Your task to perform on an android device: Go to Amazon Image 0: 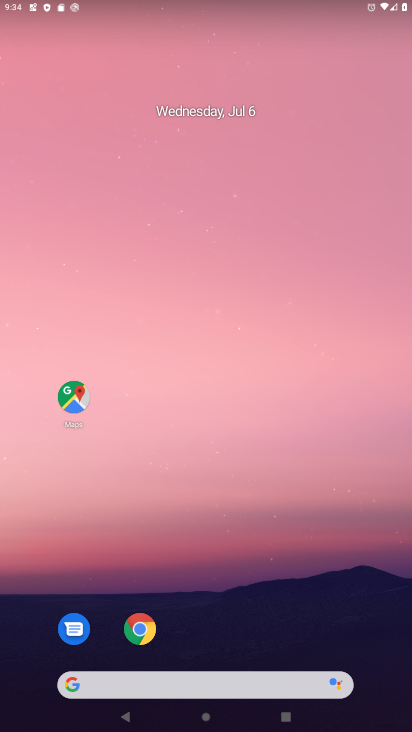
Step 0: click (133, 627)
Your task to perform on an android device: Go to Amazon Image 1: 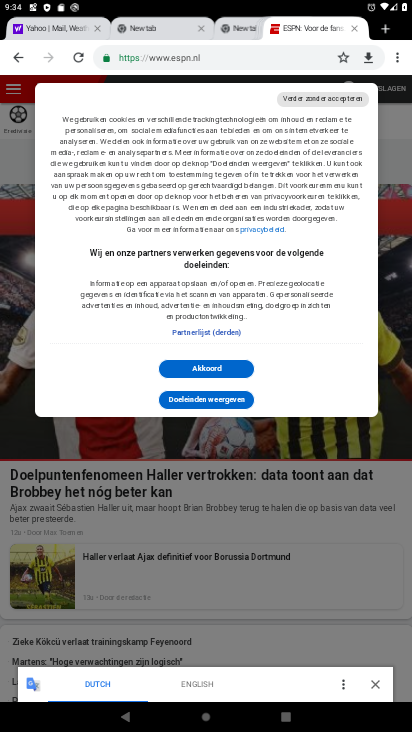
Step 1: click (12, 59)
Your task to perform on an android device: Go to Amazon Image 2: 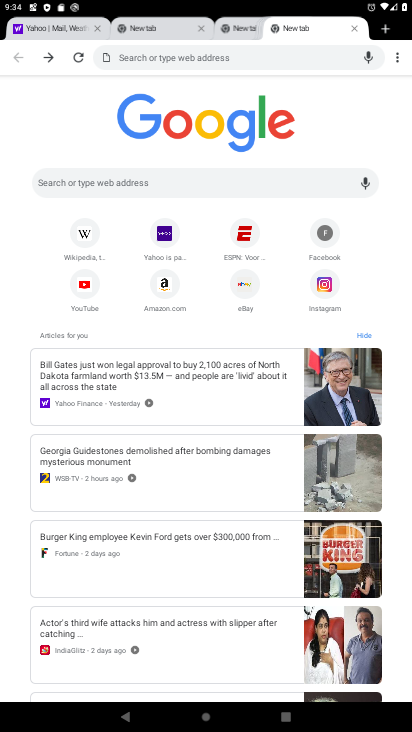
Step 2: click (164, 288)
Your task to perform on an android device: Go to Amazon Image 3: 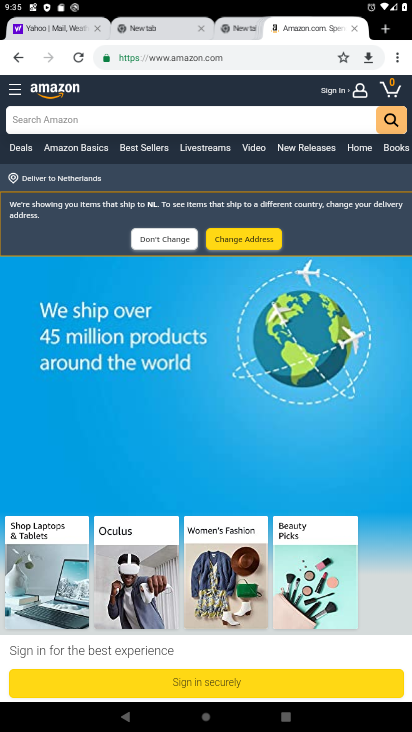
Step 3: task complete